Your task to perform on an android device: choose inbox layout in the gmail app Image 0: 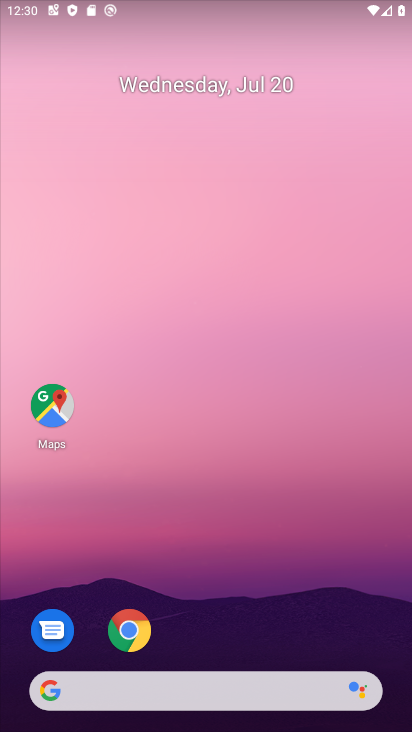
Step 0: drag from (219, 635) to (302, 100)
Your task to perform on an android device: choose inbox layout in the gmail app Image 1: 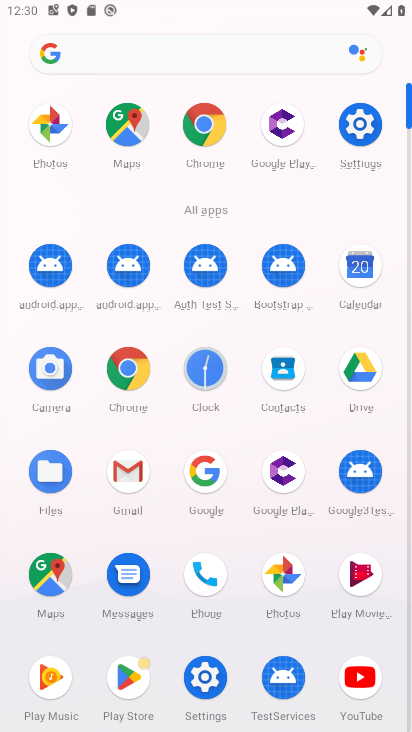
Step 1: click (118, 474)
Your task to perform on an android device: choose inbox layout in the gmail app Image 2: 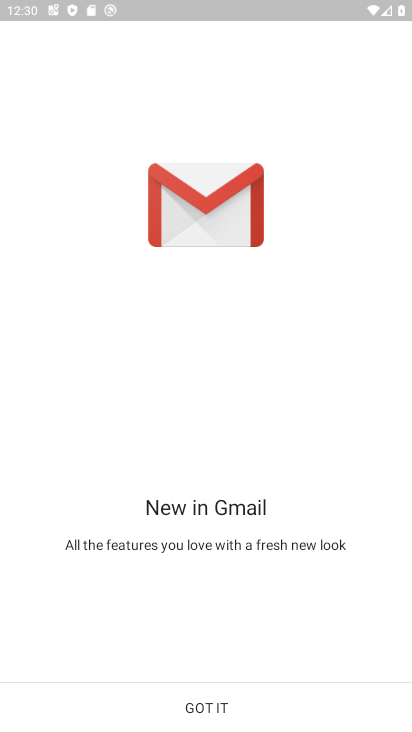
Step 2: click (148, 704)
Your task to perform on an android device: choose inbox layout in the gmail app Image 3: 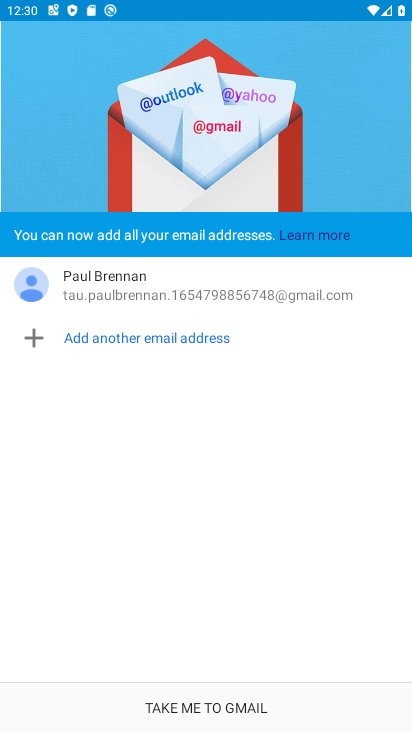
Step 3: click (166, 704)
Your task to perform on an android device: choose inbox layout in the gmail app Image 4: 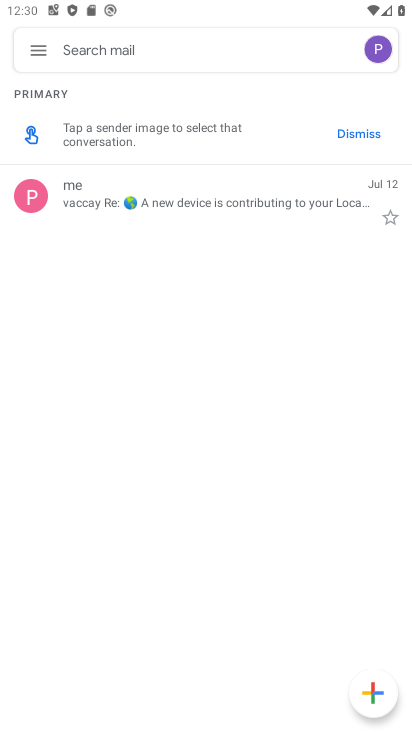
Step 4: click (37, 49)
Your task to perform on an android device: choose inbox layout in the gmail app Image 5: 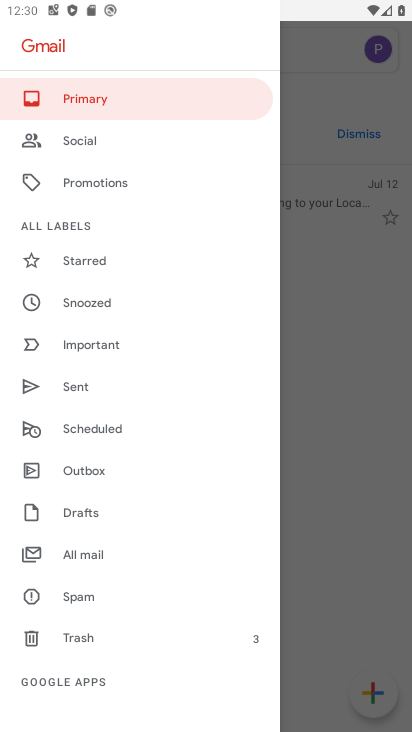
Step 5: drag from (92, 661) to (135, 177)
Your task to perform on an android device: choose inbox layout in the gmail app Image 6: 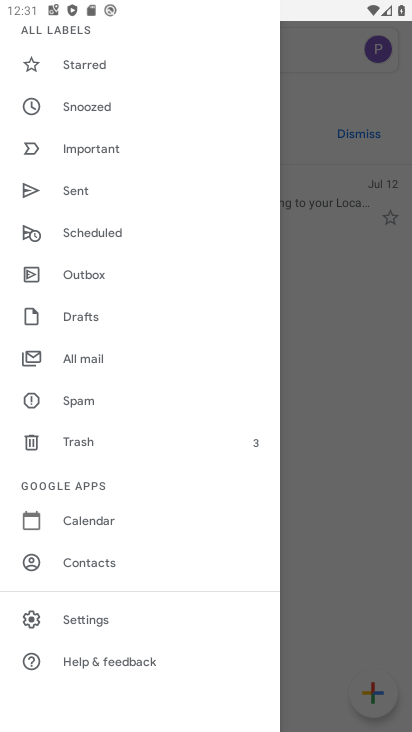
Step 6: click (102, 620)
Your task to perform on an android device: choose inbox layout in the gmail app Image 7: 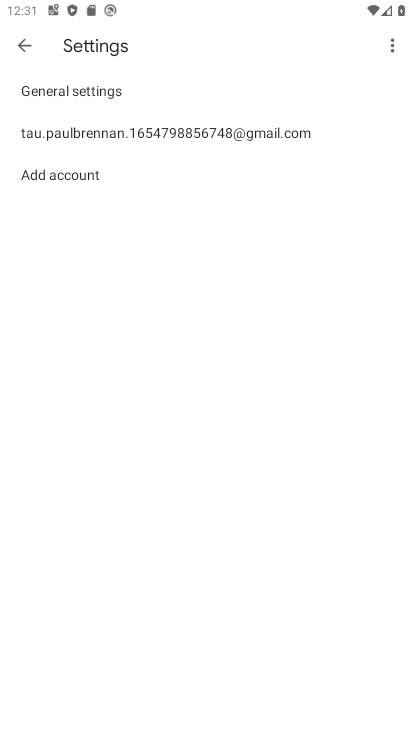
Step 7: click (199, 136)
Your task to perform on an android device: choose inbox layout in the gmail app Image 8: 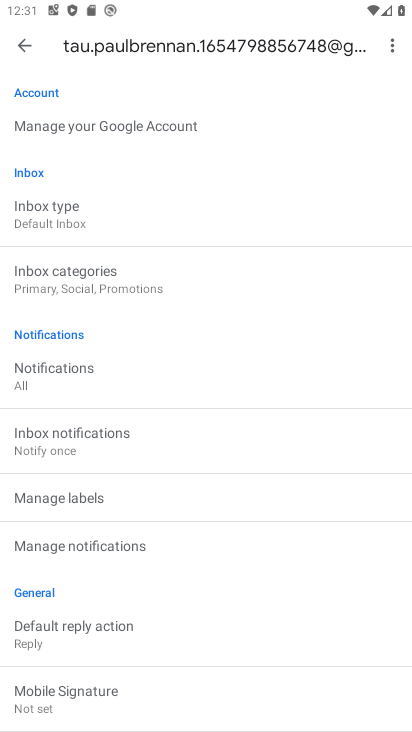
Step 8: click (85, 213)
Your task to perform on an android device: choose inbox layout in the gmail app Image 9: 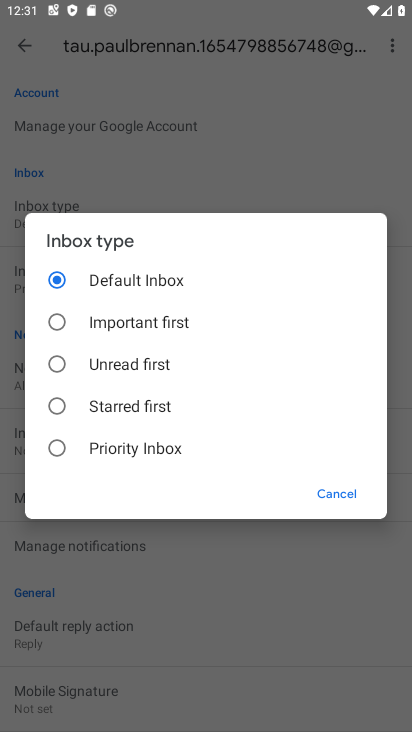
Step 9: click (101, 312)
Your task to perform on an android device: choose inbox layout in the gmail app Image 10: 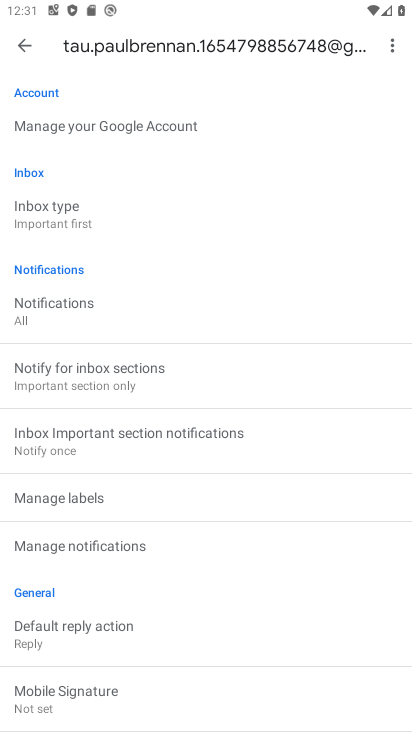
Step 10: task complete